Your task to perform on an android device: check google app version Image 0: 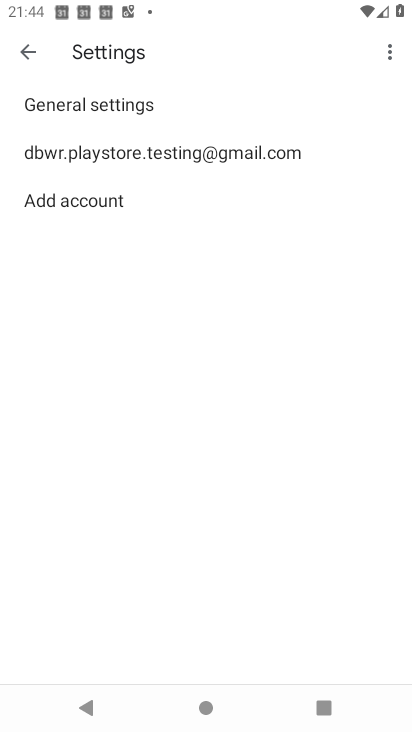
Step 0: press home button
Your task to perform on an android device: check google app version Image 1: 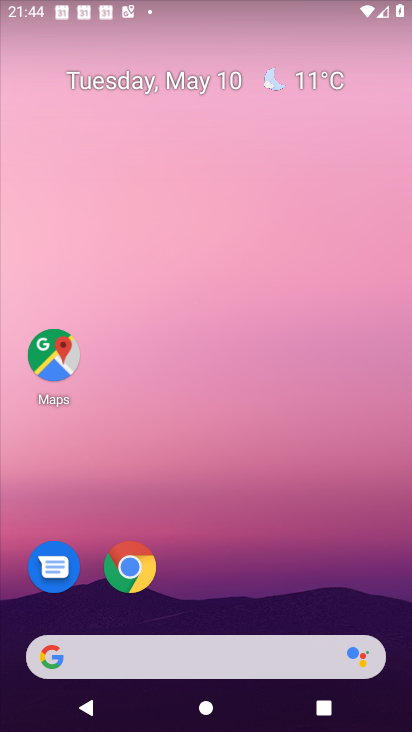
Step 1: drag from (160, 634) to (165, 273)
Your task to perform on an android device: check google app version Image 2: 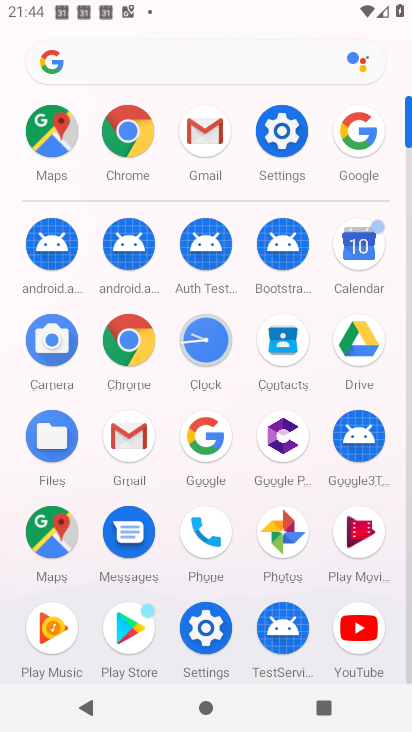
Step 2: click (204, 438)
Your task to perform on an android device: check google app version Image 3: 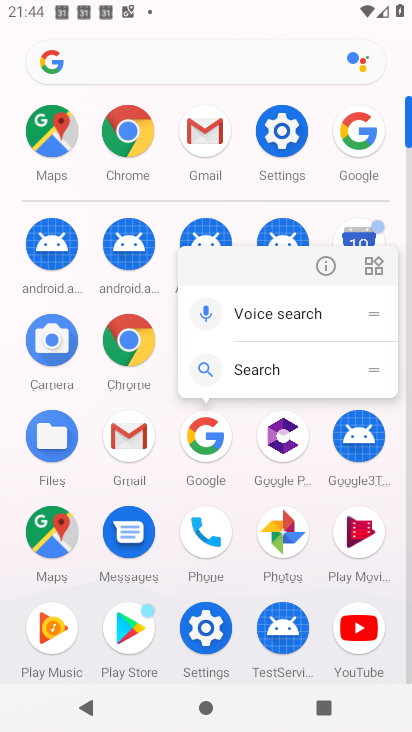
Step 3: click (325, 267)
Your task to perform on an android device: check google app version Image 4: 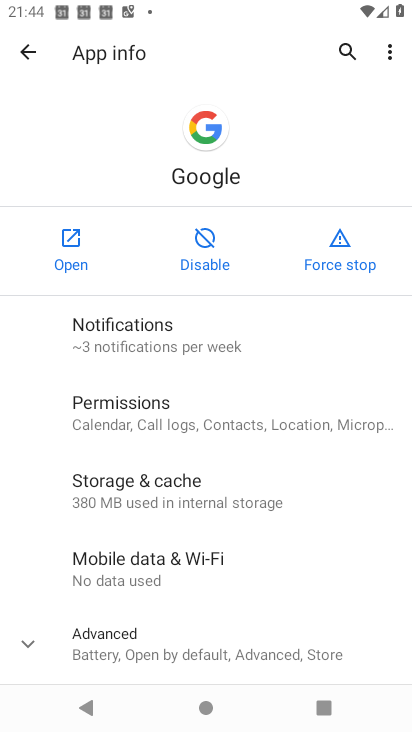
Step 4: drag from (224, 665) to (225, 316)
Your task to perform on an android device: check google app version Image 5: 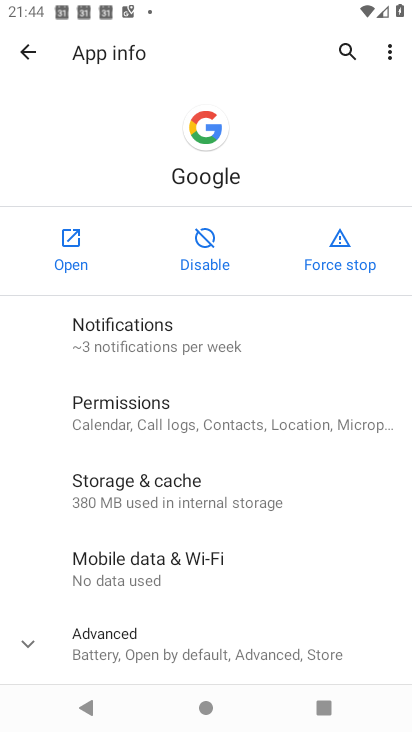
Step 5: click (109, 636)
Your task to perform on an android device: check google app version Image 6: 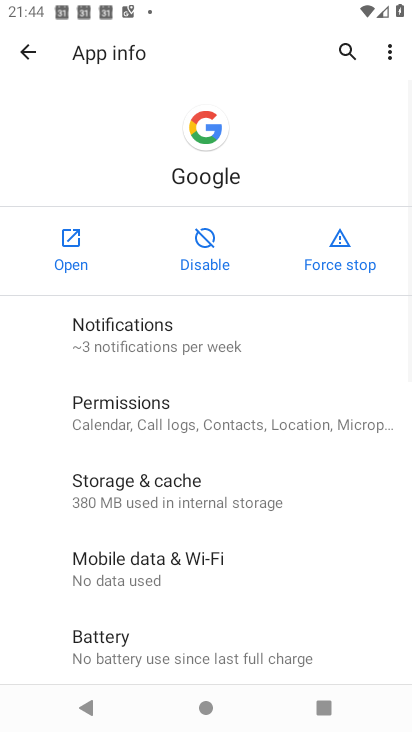
Step 6: task complete